Your task to perform on an android device: check the backup settings in the google photos Image 0: 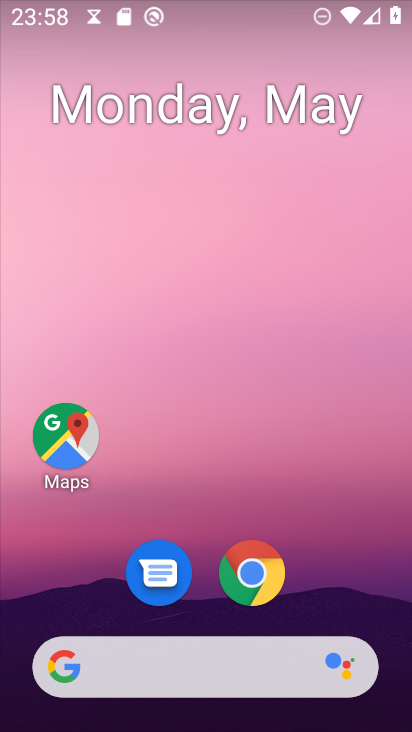
Step 0: drag from (338, 540) to (245, 30)
Your task to perform on an android device: check the backup settings in the google photos Image 1: 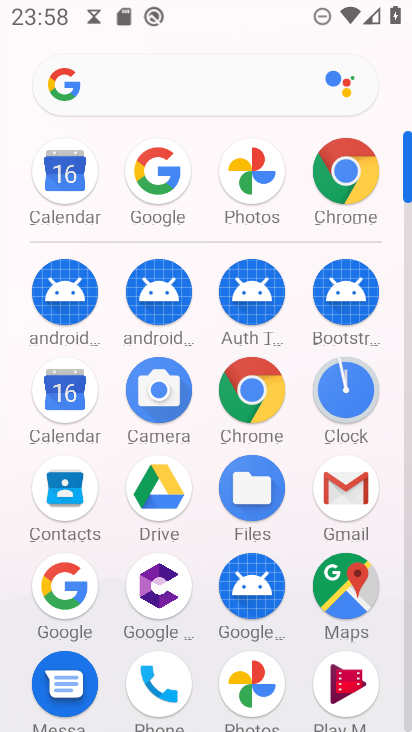
Step 1: click (259, 202)
Your task to perform on an android device: check the backup settings in the google photos Image 2: 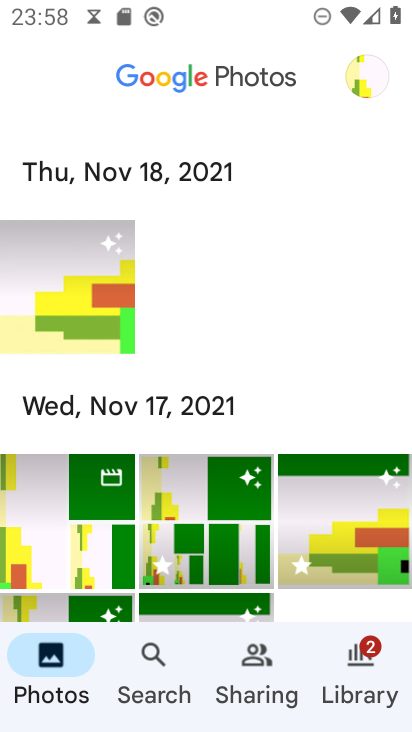
Step 2: click (356, 73)
Your task to perform on an android device: check the backup settings in the google photos Image 3: 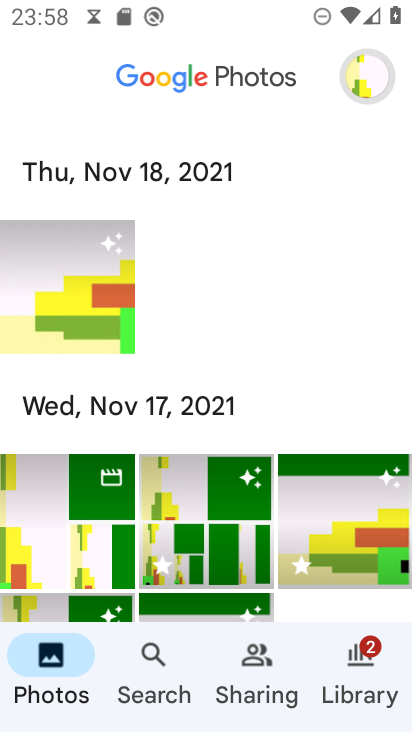
Step 3: click (364, 82)
Your task to perform on an android device: check the backup settings in the google photos Image 4: 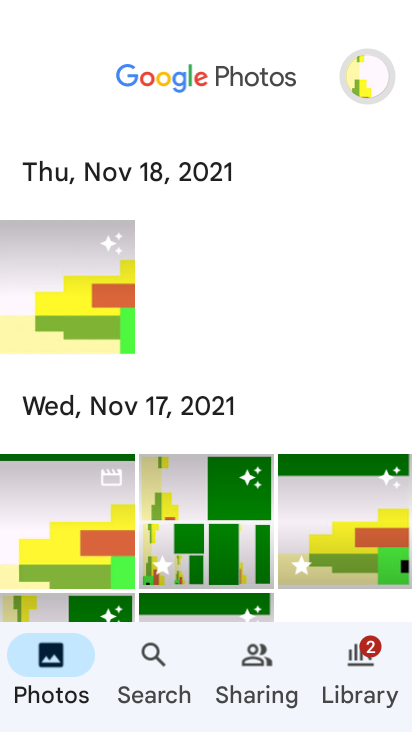
Step 4: click (367, 81)
Your task to perform on an android device: check the backup settings in the google photos Image 5: 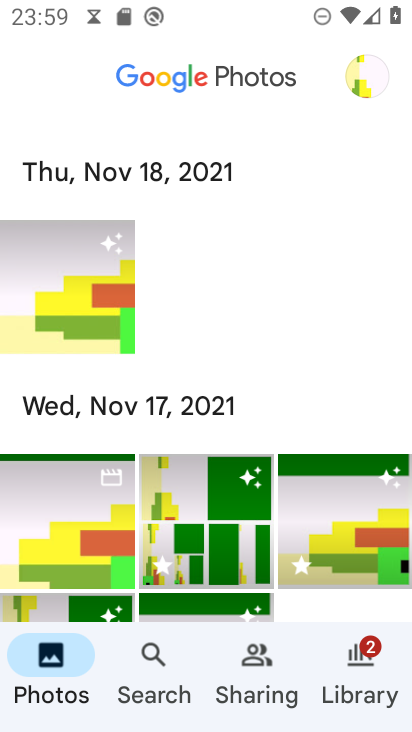
Step 5: click (360, 83)
Your task to perform on an android device: check the backup settings in the google photos Image 6: 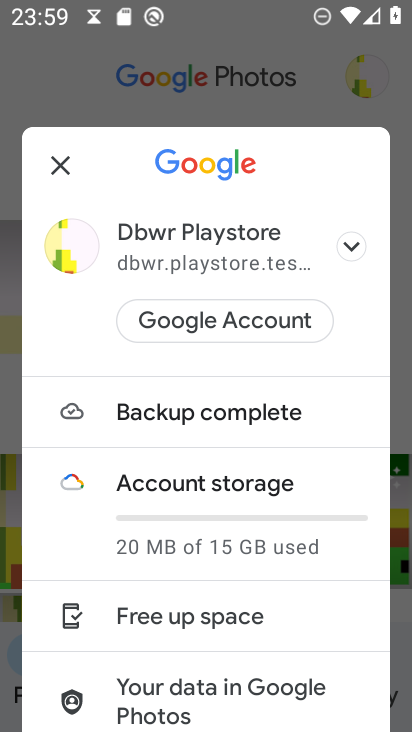
Step 6: drag from (276, 674) to (195, 255)
Your task to perform on an android device: check the backup settings in the google photos Image 7: 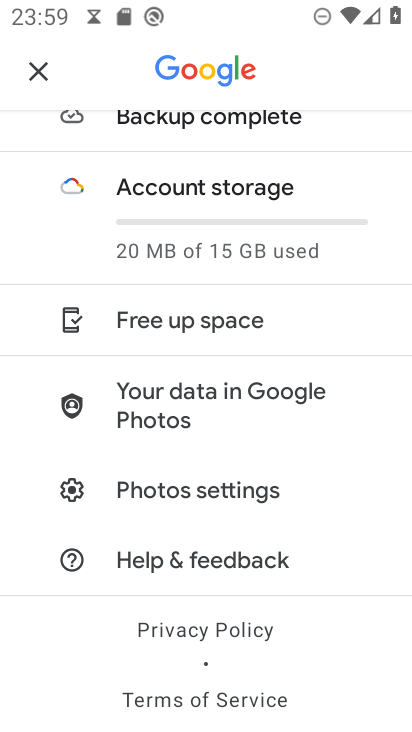
Step 7: click (233, 493)
Your task to perform on an android device: check the backup settings in the google photos Image 8: 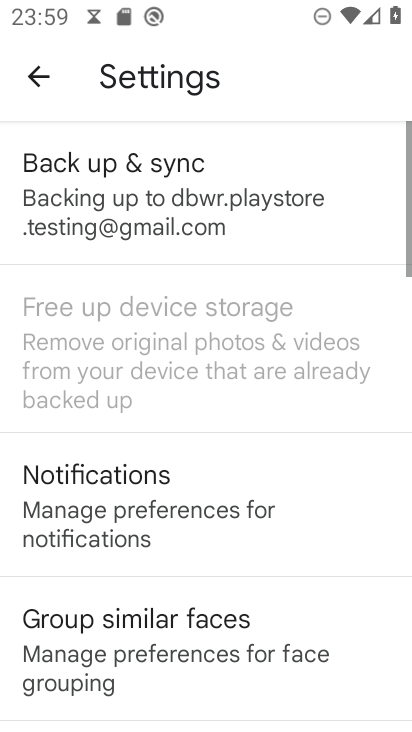
Step 8: click (145, 196)
Your task to perform on an android device: check the backup settings in the google photos Image 9: 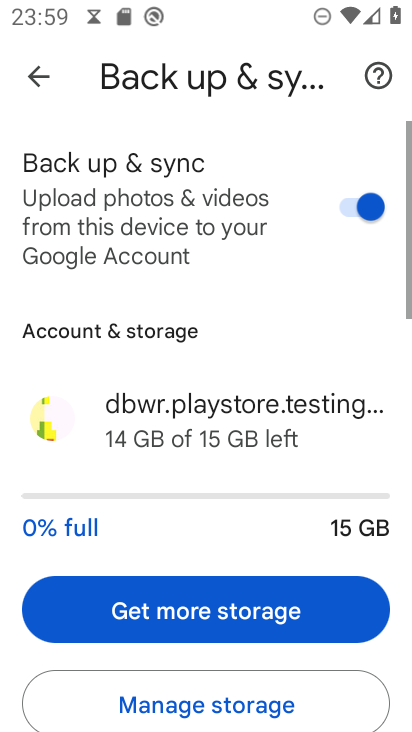
Step 9: task complete